Your task to perform on an android device: Open Yahoo.com Image 0: 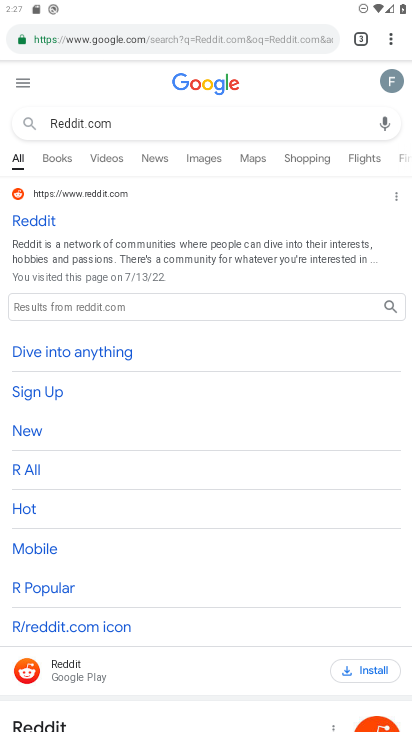
Step 0: click (172, 38)
Your task to perform on an android device: Open Yahoo.com Image 1: 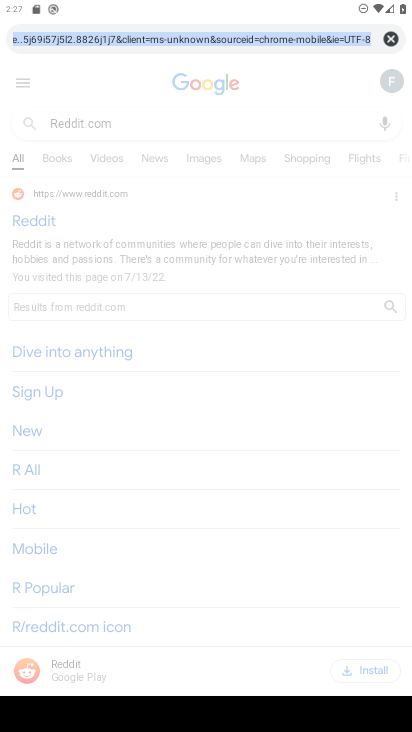
Step 1: click (392, 39)
Your task to perform on an android device: Open Yahoo.com Image 2: 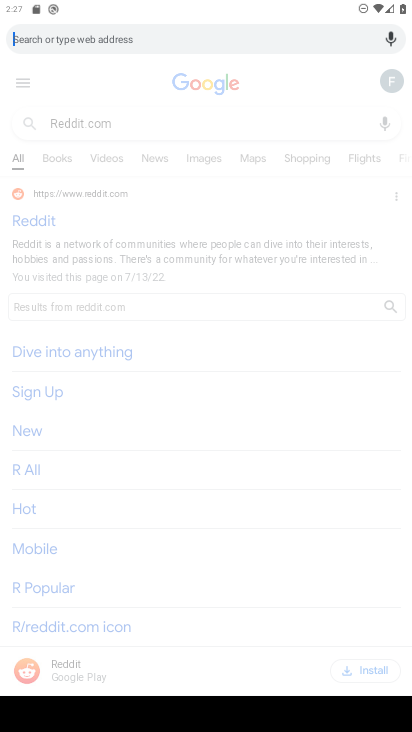
Step 2: type "Yahoo.com"
Your task to perform on an android device: Open Yahoo.com Image 3: 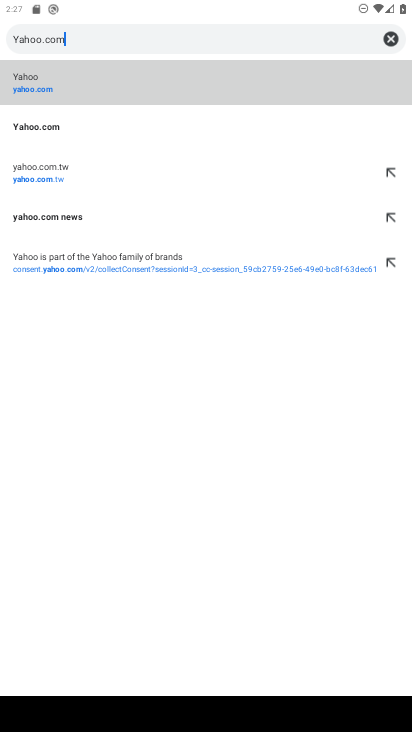
Step 3: click (46, 120)
Your task to perform on an android device: Open Yahoo.com Image 4: 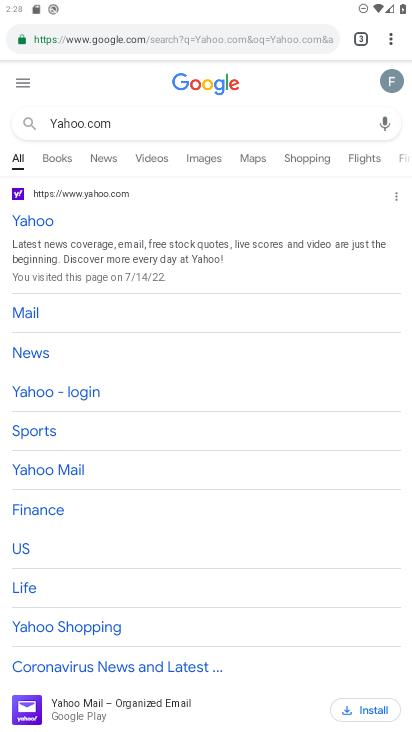
Step 4: task complete